Your task to perform on an android device: Open battery settings Image 0: 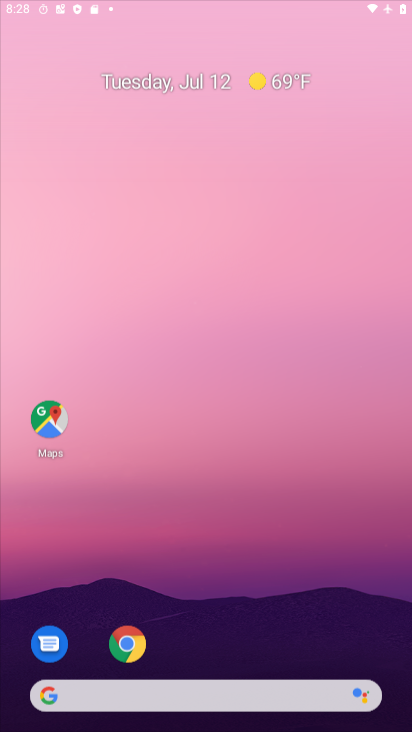
Step 0: press home button
Your task to perform on an android device: Open battery settings Image 1: 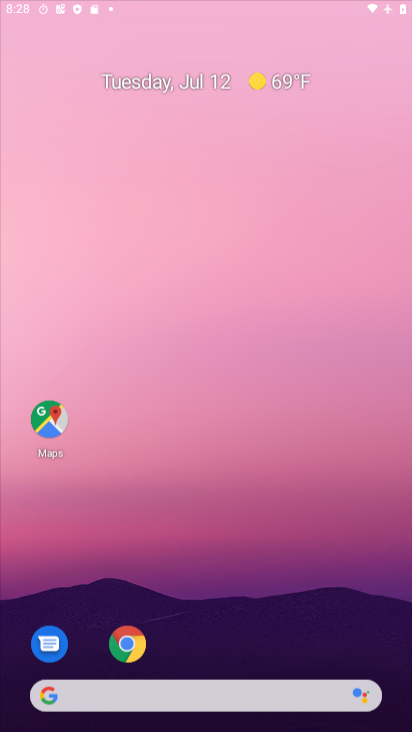
Step 1: click (211, 61)
Your task to perform on an android device: Open battery settings Image 2: 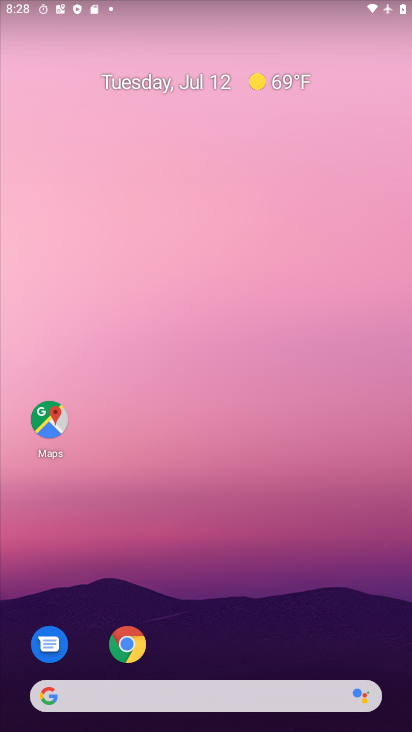
Step 2: drag from (217, 656) to (222, 0)
Your task to perform on an android device: Open battery settings Image 3: 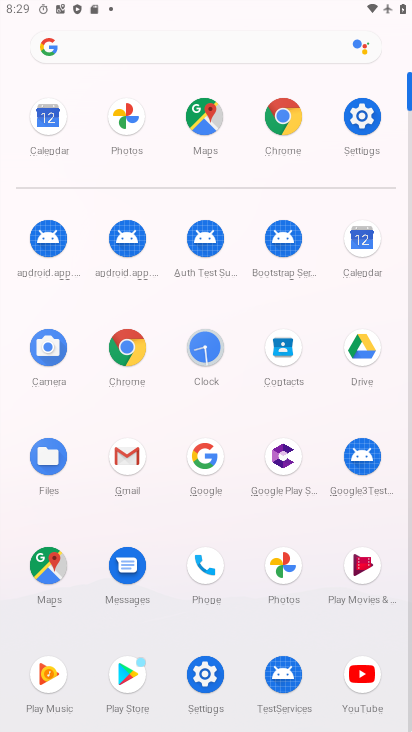
Step 3: click (360, 111)
Your task to perform on an android device: Open battery settings Image 4: 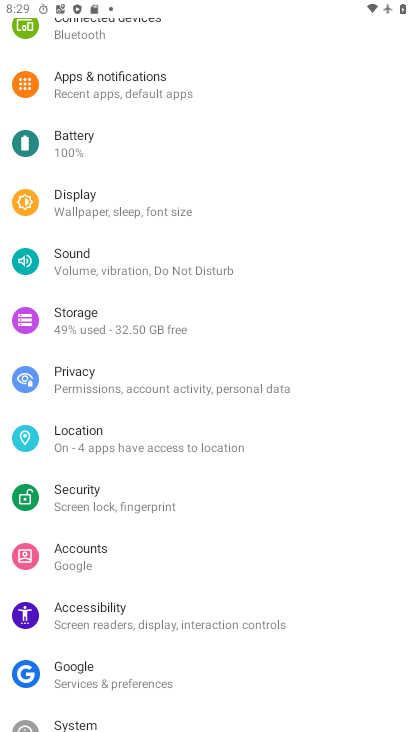
Step 4: click (103, 139)
Your task to perform on an android device: Open battery settings Image 5: 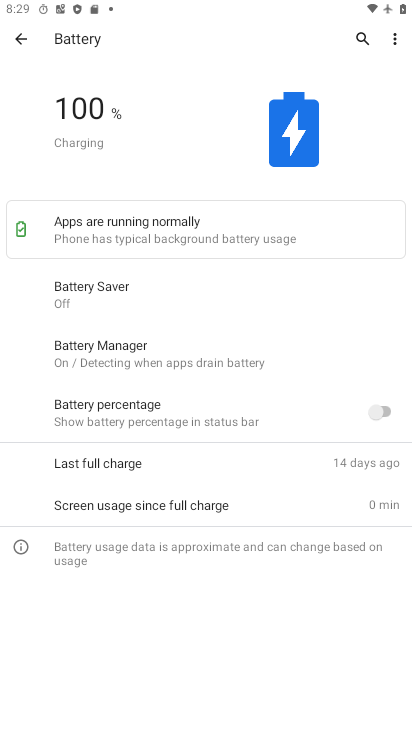
Step 5: task complete